Your task to perform on an android device: Go to Maps Image 0: 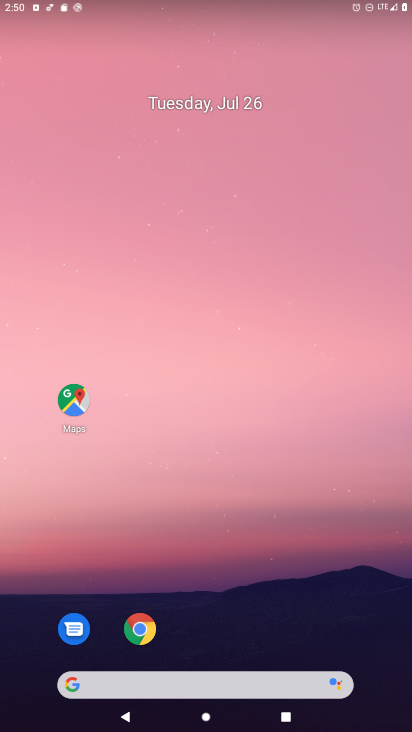
Step 0: click (74, 400)
Your task to perform on an android device: Go to Maps Image 1: 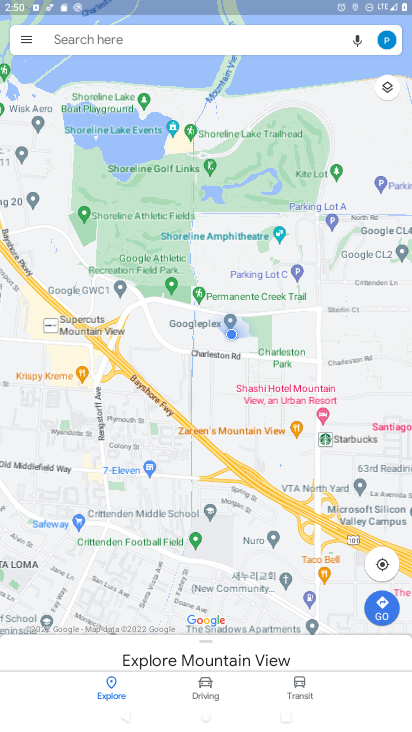
Step 1: task complete